Your task to perform on an android device: add a label to a message in the gmail app Image 0: 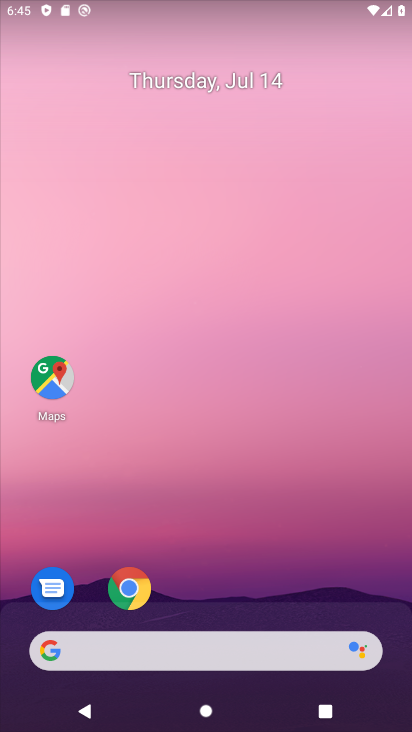
Step 0: drag from (389, 651) to (201, 144)
Your task to perform on an android device: add a label to a message in the gmail app Image 1: 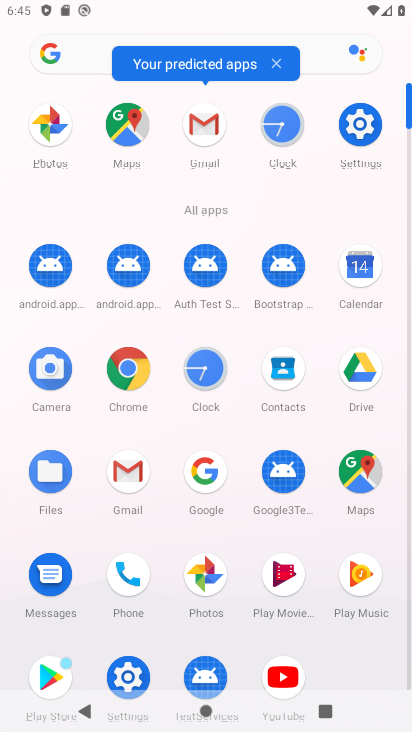
Step 1: click (143, 485)
Your task to perform on an android device: add a label to a message in the gmail app Image 2: 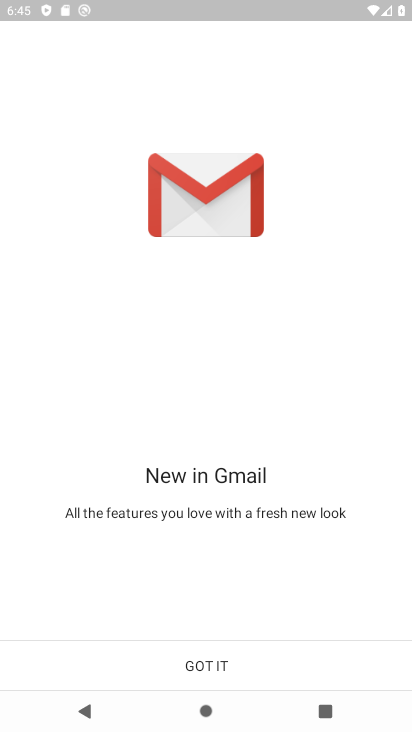
Step 2: click (195, 663)
Your task to perform on an android device: add a label to a message in the gmail app Image 3: 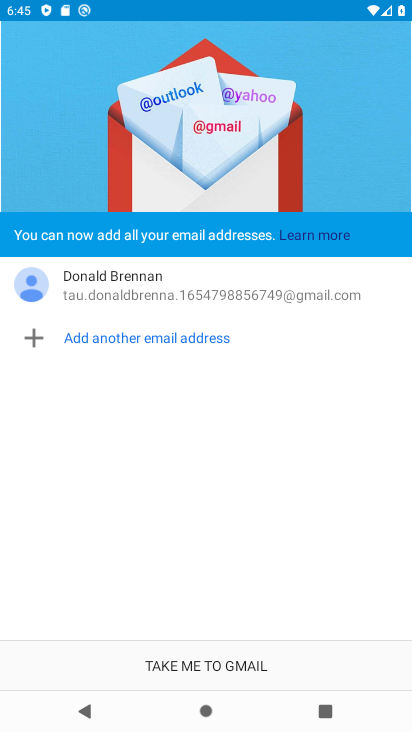
Step 3: click (192, 663)
Your task to perform on an android device: add a label to a message in the gmail app Image 4: 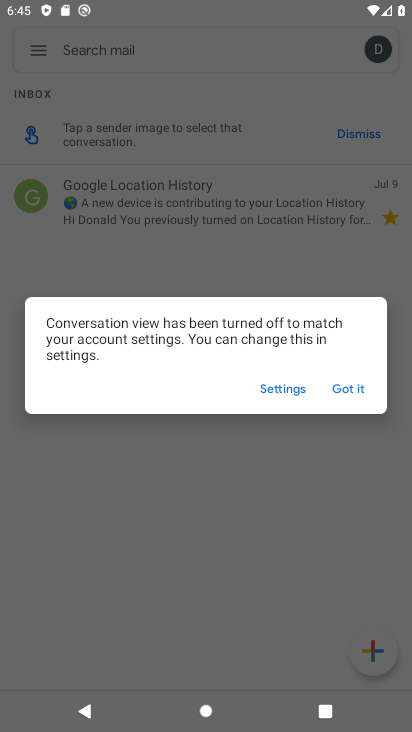
Step 4: click (336, 385)
Your task to perform on an android device: add a label to a message in the gmail app Image 5: 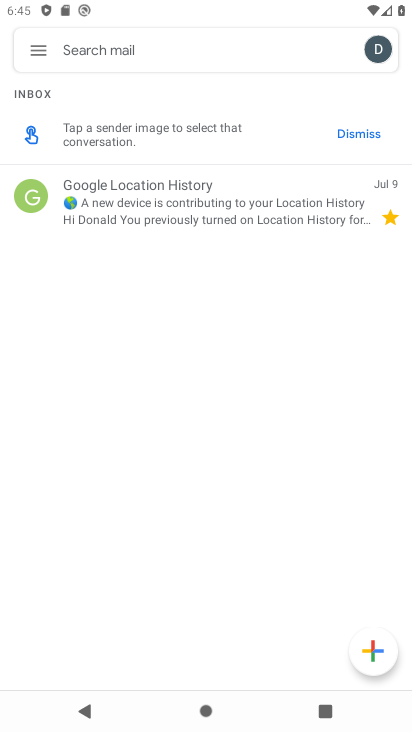
Step 5: task complete